Your task to perform on an android device: set the timer Image 0: 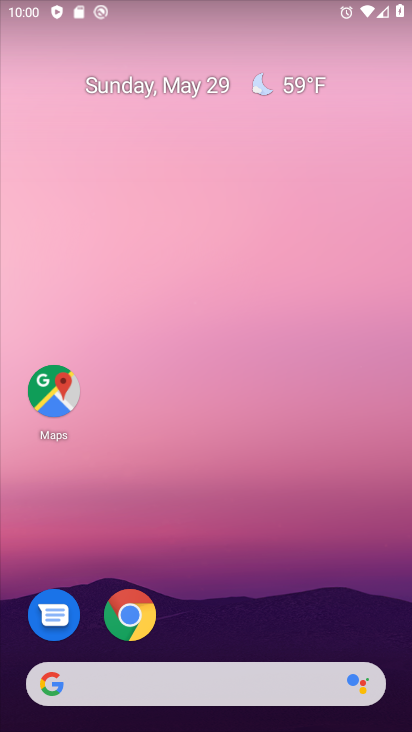
Step 0: drag from (235, 606) to (260, 84)
Your task to perform on an android device: set the timer Image 1: 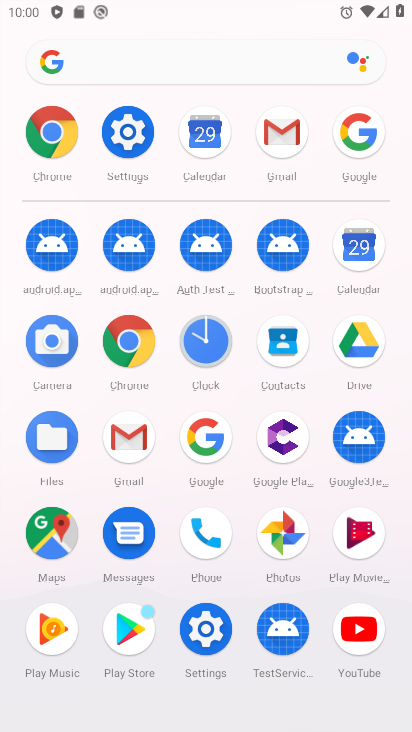
Step 1: click (189, 350)
Your task to perform on an android device: set the timer Image 2: 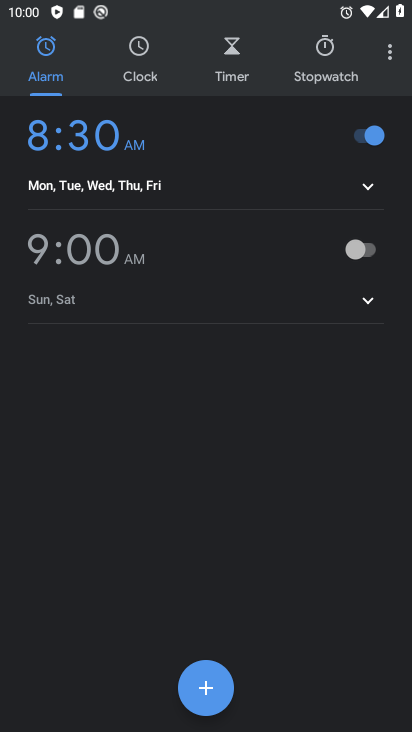
Step 2: click (224, 60)
Your task to perform on an android device: set the timer Image 3: 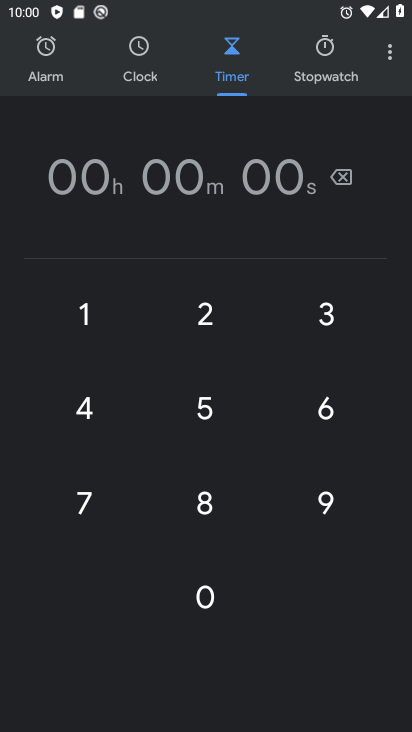
Step 3: click (202, 305)
Your task to perform on an android device: set the timer Image 4: 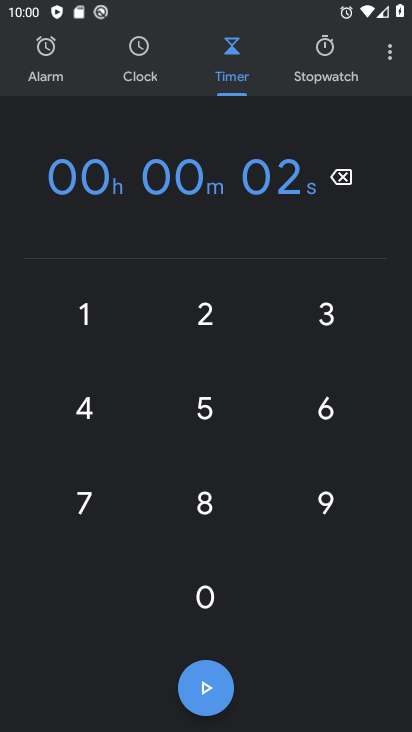
Step 4: click (202, 305)
Your task to perform on an android device: set the timer Image 5: 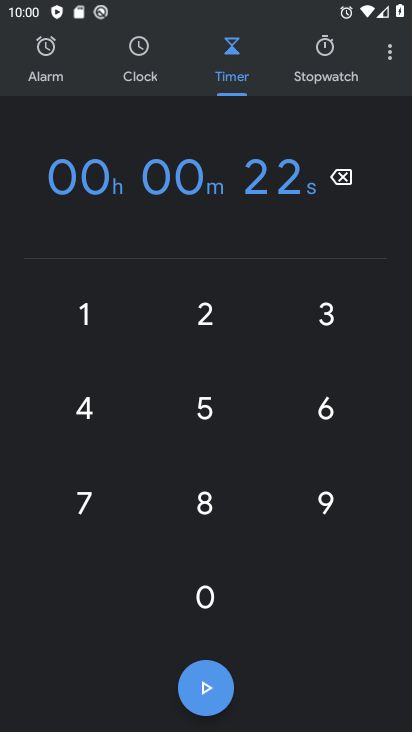
Step 5: task complete